Your task to perform on an android device: remove spam from my inbox in the gmail app Image 0: 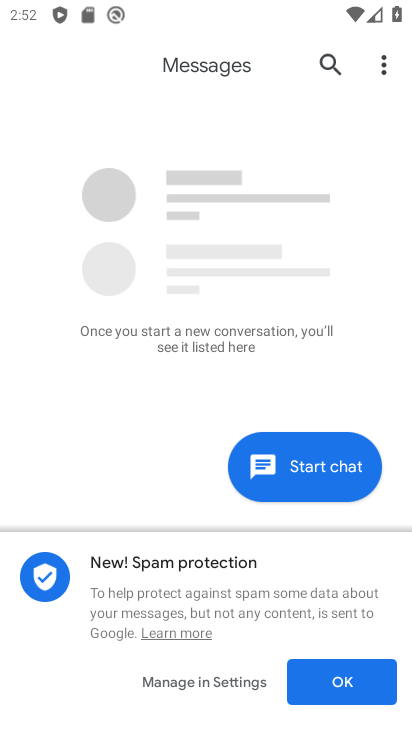
Step 0: press home button
Your task to perform on an android device: remove spam from my inbox in the gmail app Image 1: 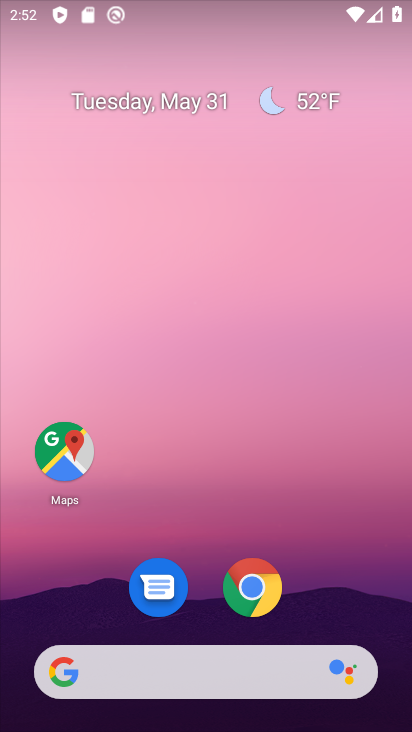
Step 1: drag from (330, 628) to (282, 49)
Your task to perform on an android device: remove spam from my inbox in the gmail app Image 2: 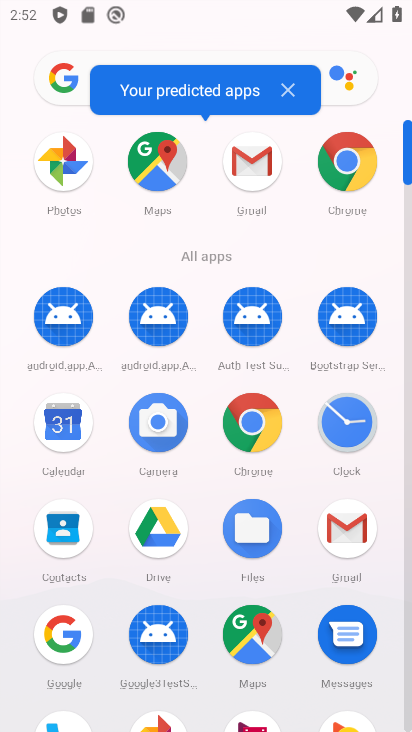
Step 2: click (269, 167)
Your task to perform on an android device: remove spam from my inbox in the gmail app Image 3: 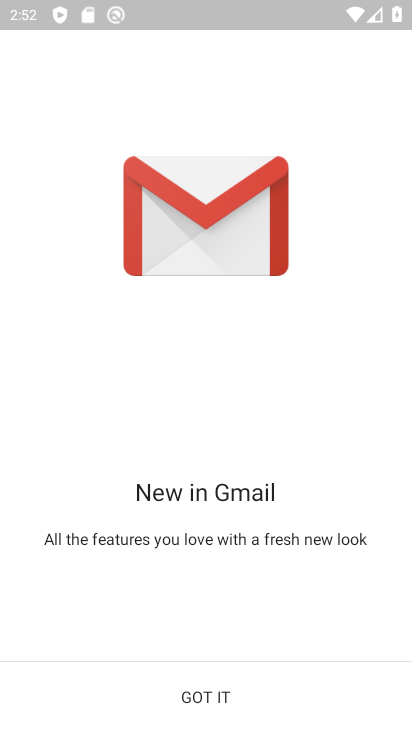
Step 3: click (221, 692)
Your task to perform on an android device: remove spam from my inbox in the gmail app Image 4: 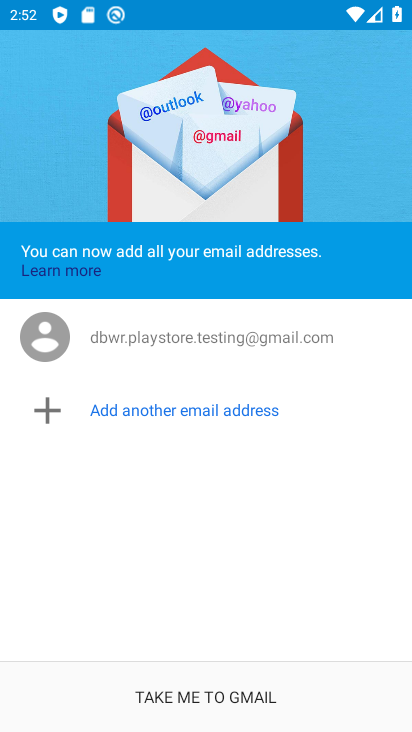
Step 4: click (221, 692)
Your task to perform on an android device: remove spam from my inbox in the gmail app Image 5: 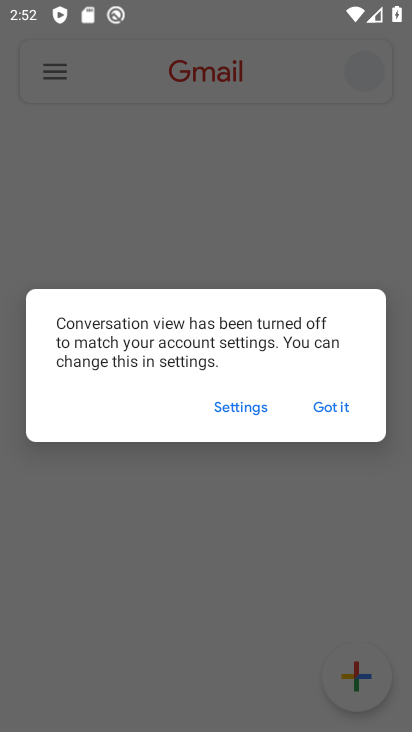
Step 5: click (320, 403)
Your task to perform on an android device: remove spam from my inbox in the gmail app Image 6: 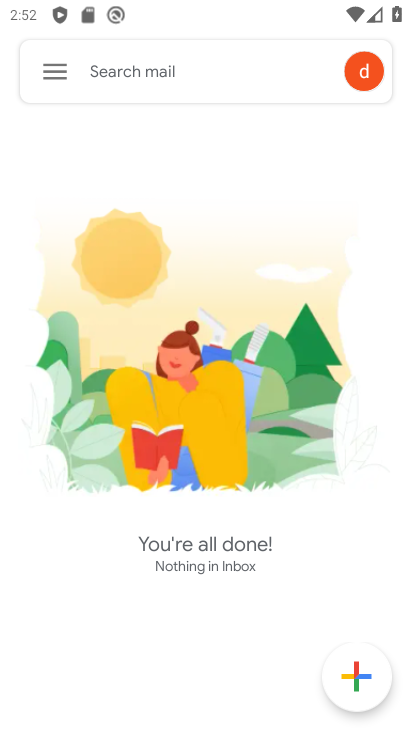
Step 6: click (57, 72)
Your task to perform on an android device: remove spam from my inbox in the gmail app Image 7: 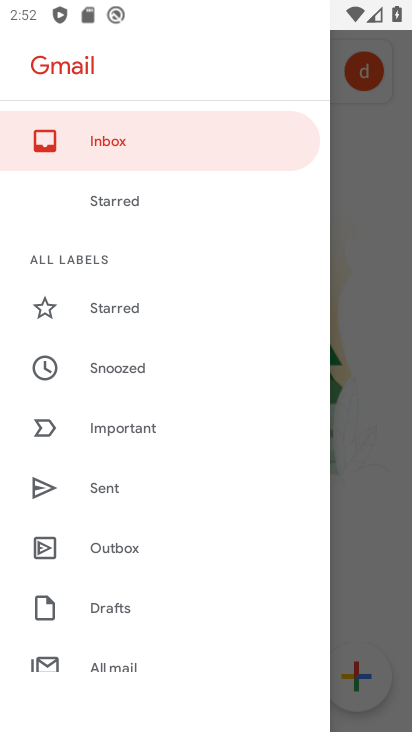
Step 7: drag from (151, 658) to (162, 228)
Your task to perform on an android device: remove spam from my inbox in the gmail app Image 8: 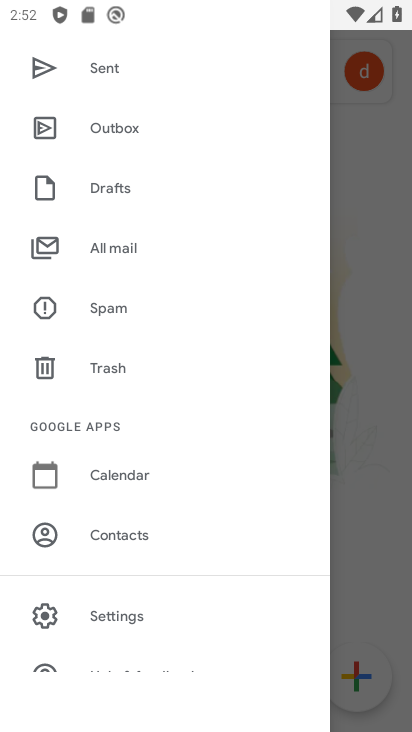
Step 8: click (114, 315)
Your task to perform on an android device: remove spam from my inbox in the gmail app Image 9: 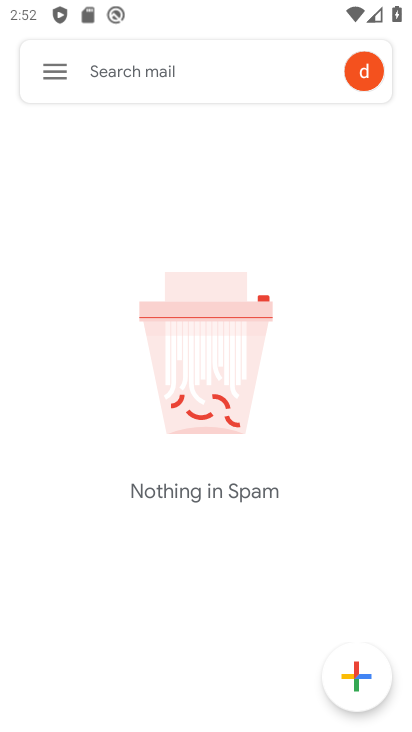
Step 9: task complete